Your task to perform on an android device: turn on airplane mode Image 0: 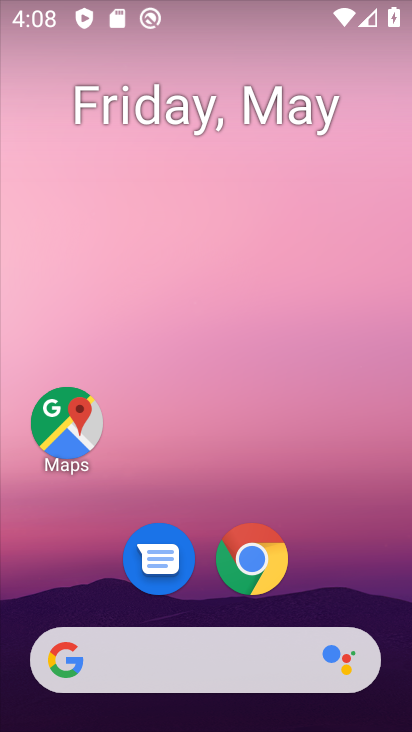
Step 0: drag from (287, 523) to (282, 168)
Your task to perform on an android device: turn on airplane mode Image 1: 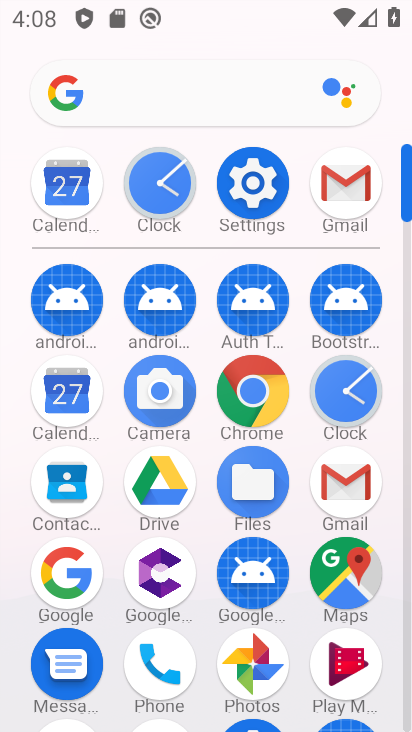
Step 1: click (252, 185)
Your task to perform on an android device: turn on airplane mode Image 2: 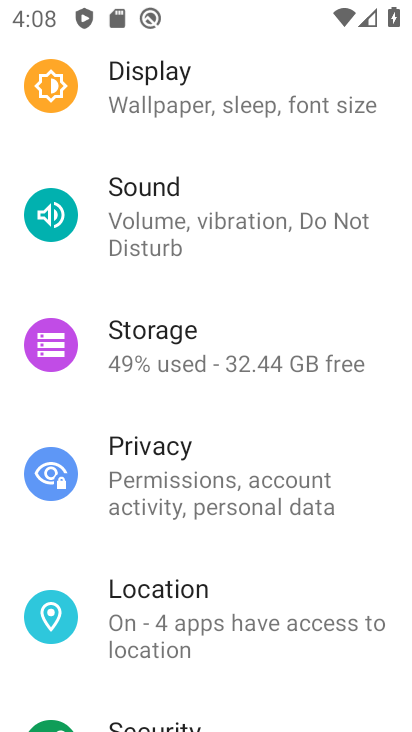
Step 2: drag from (267, 169) to (230, 638)
Your task to perform on an android device: turn on airplane mode Image 3: 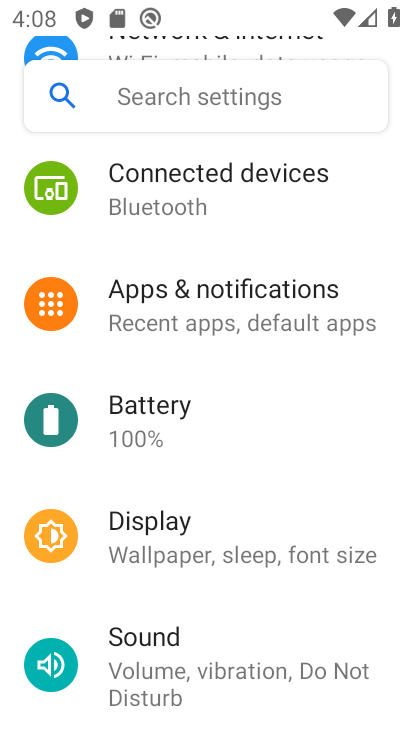
Step 3: drag from (264, 201) to (215, 557)
Your task to perform on an android device: turn on airplane mode Image 4: 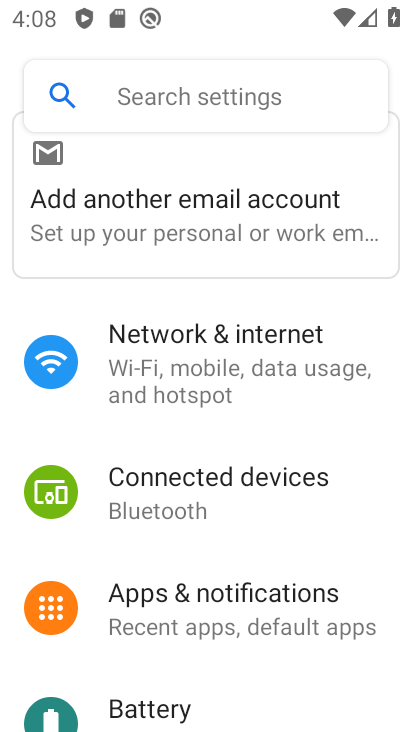
Step 4: click (214, 362)
Your task to perform on an android device: turn on airplane mode Image 5: 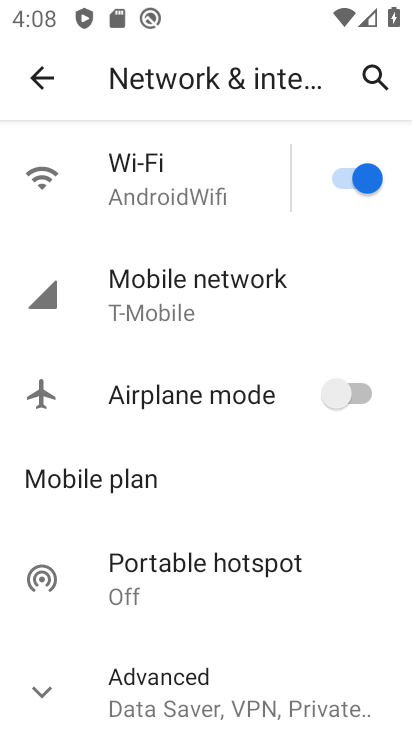
Step 5: click (296, 383)
Your task to perform on an android device: turn on airplane mode Image 6: 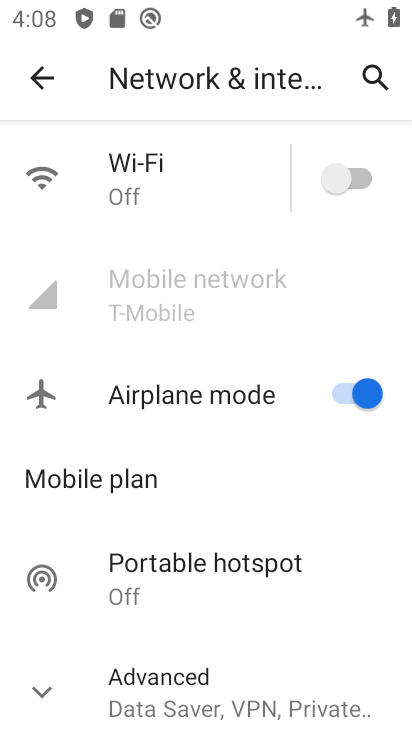
Step 6: task complete